Your task to perform on an android device: Open Google Chrome and click the shortcut for Amazon.com Image 0: 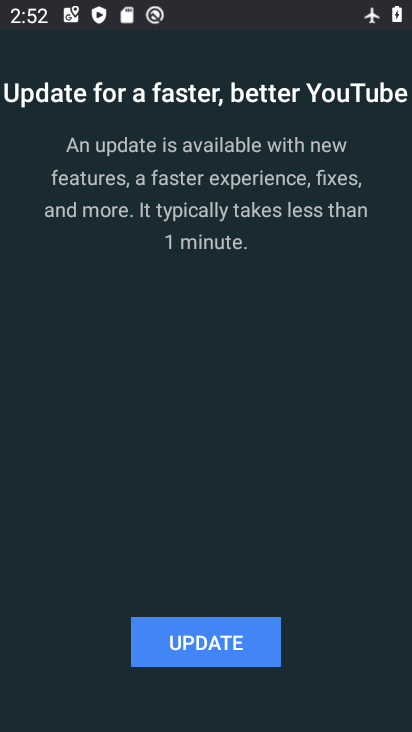
Step 0: press home button
Your task to perform on an android device: Open Google Chrome and click the shortcut for Amazon.com Image 1: 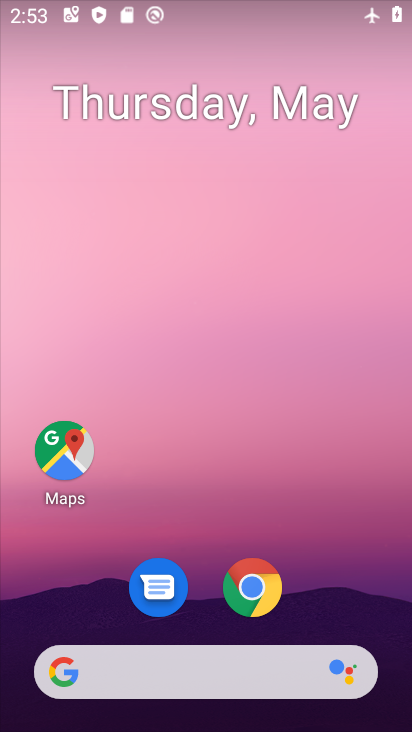
Step 1: click (256, 590)
Your task to perform on an android device: Open Google Chrome and click the shortcut for Amazon.com Image 2: 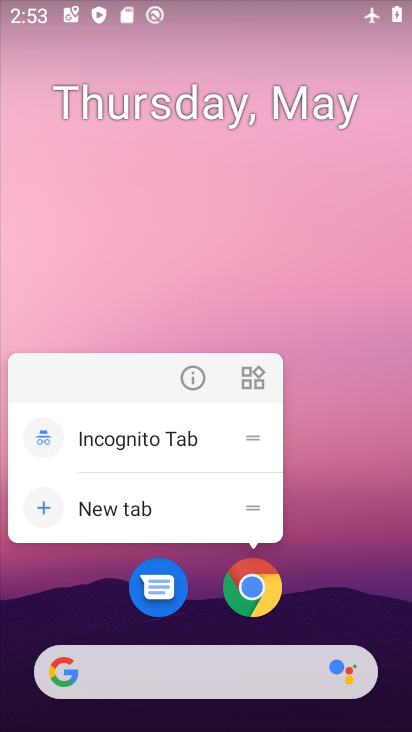
Step 2: click (259, 580)
Your task to perform on an android device: Open Google Chrome and click the shortcut for Amazon.com Image 3: 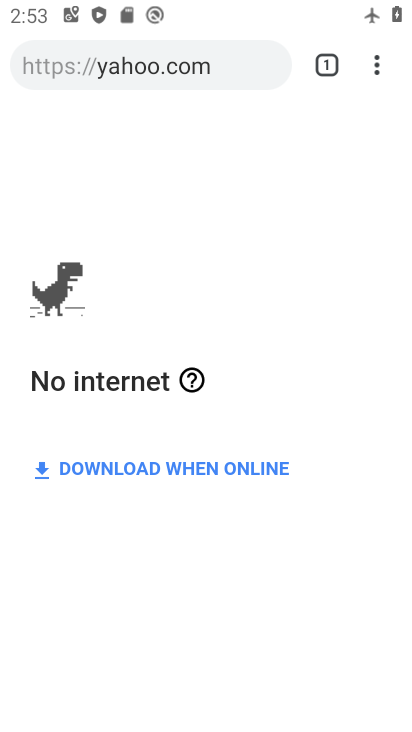
Step 3: click (219, 79)
Your task to perform on an android device: Open Google Chrome and click the shortcut for Amazon.com Image 4: 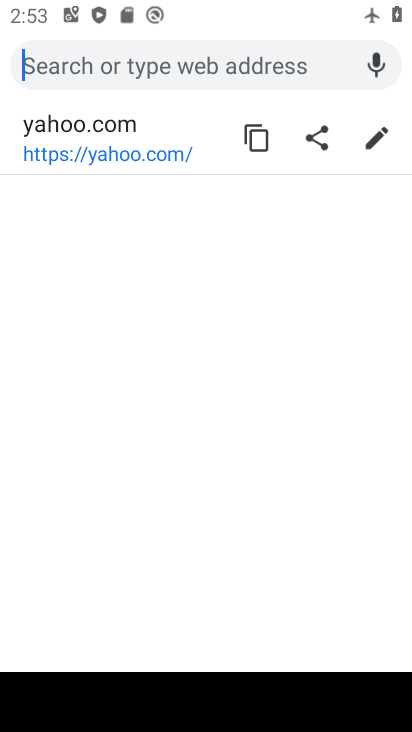
Step 4: task complete